Your task to perform on an android device: turn off priority inbox in the gmail app Image 0: 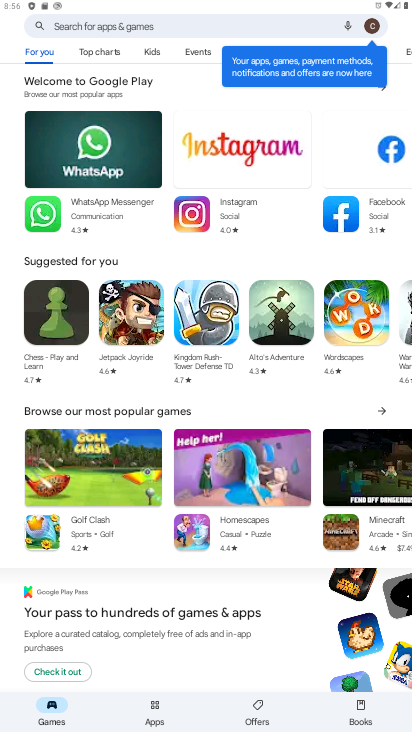
Step 0: press home button
Your task to perform on an android device: turn off priority inbox in the gmail app Image 1: 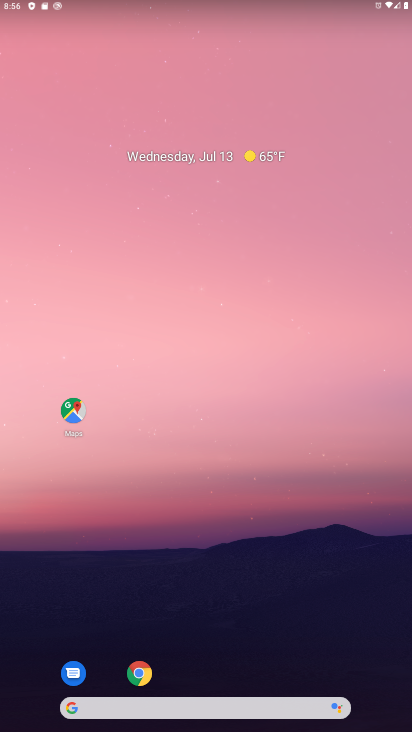
Step 1: drag from (197, 706) to (279, 94)
Your task to perform on an android device: turn off priority inbox in the gmail app Image 2: 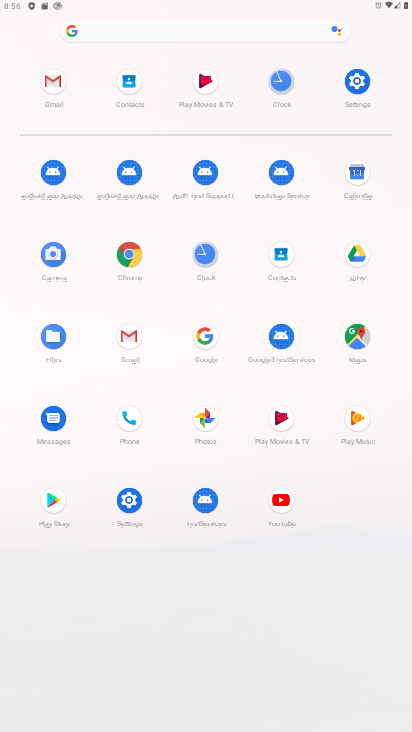
Step 2: click (129, 334)
Your task to perform on an android device: turn off priority inbox in the gmail app Image 3: 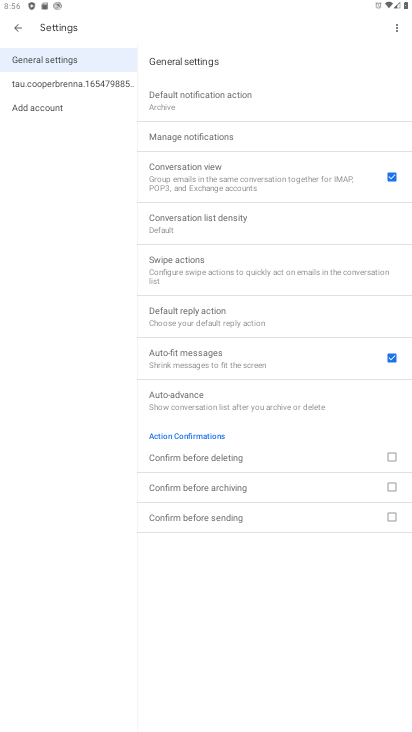
Step 3: click (105, 84)
Your task to perform on an android device: turn off priority inbox in the gmail app Image 4: 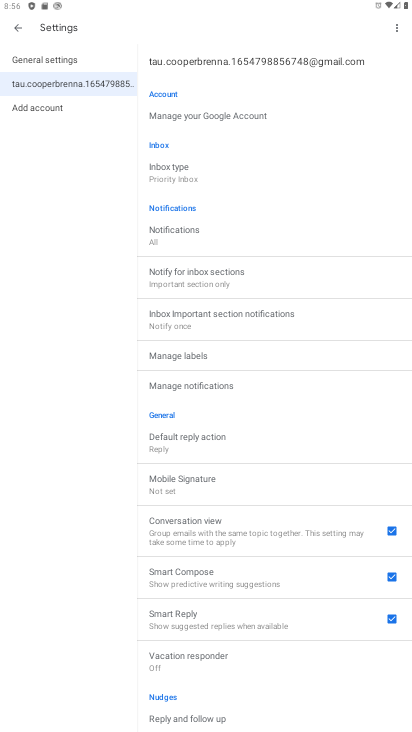
Step 4: click (168, 170)
Your task to perform on an android device: turn off priority inbox in the gmail app Image 5: 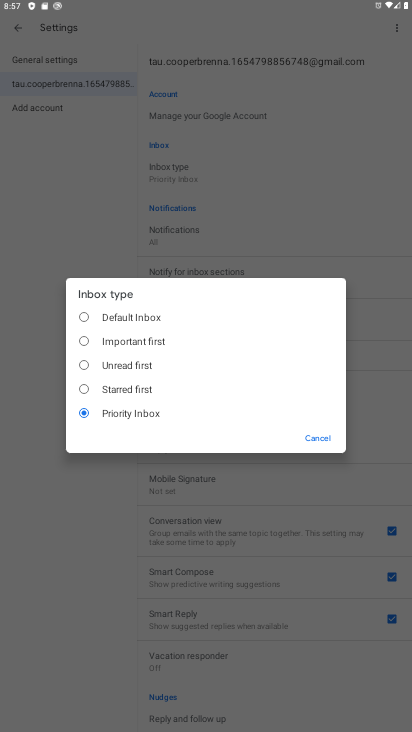
Step 5: click (82, 390)
Your task to perform on an android device: turn off priority inbox in the gmail app Image 6: 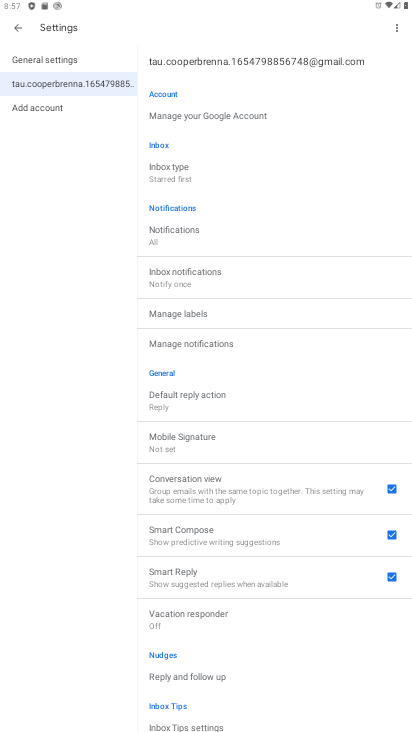
Step 6: task complete